Your task to perform on an android device: Open network settings Image 0: 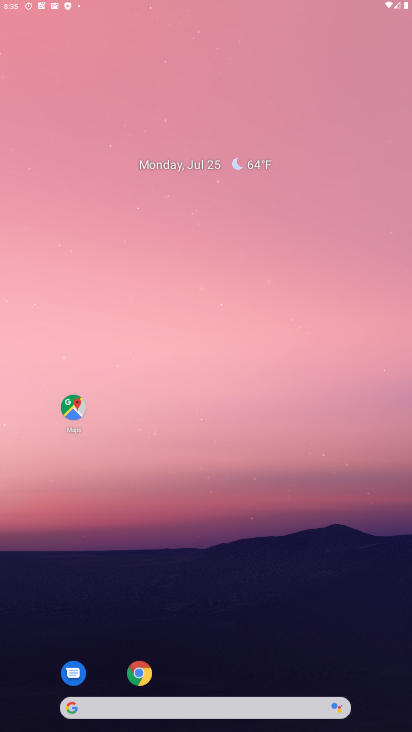
Step 0: drag from (205, 576) to (230, 170)
Your task to perform on an android device: Open network settings Image 1: 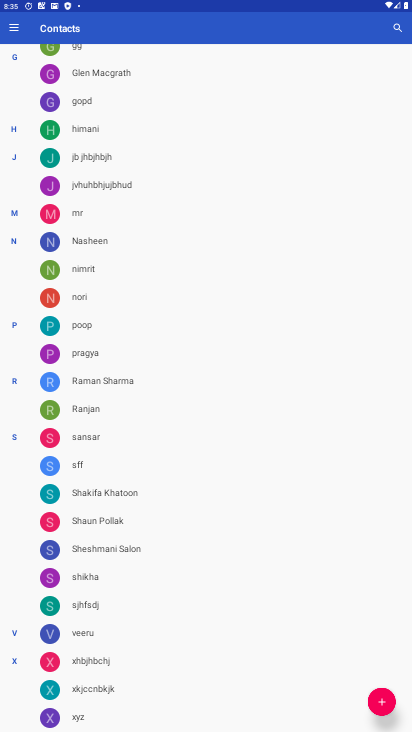
Step 1: press home button
Your task to perform on an android device: Open network settings Image 2: 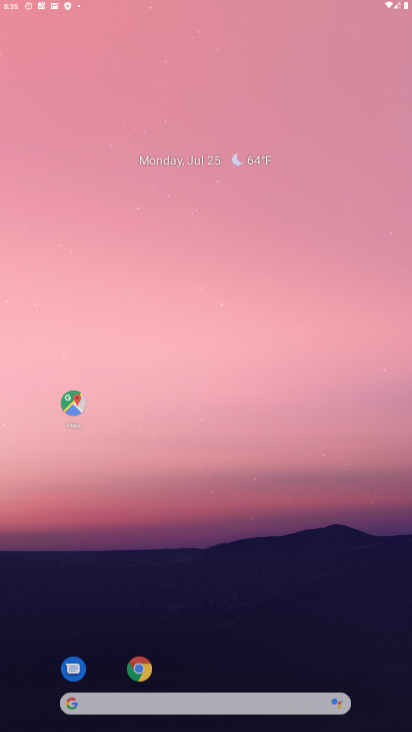
Step 2: drag from (159, 643) to (406, 26)
Your task to perform on an android device: Open network settings Image 3: 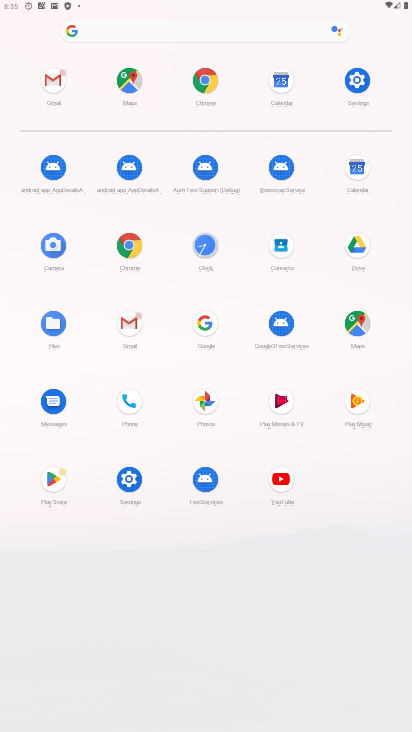
Step 3: click (130, 472)
Your task to perform on an android device: Open network settings Image 4: 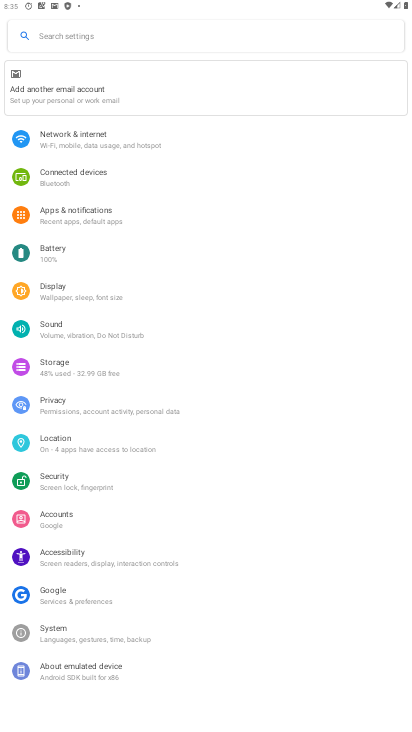
Step 4: click (111, 133)
Your task to perform on an android device: Open network settings Image 5: 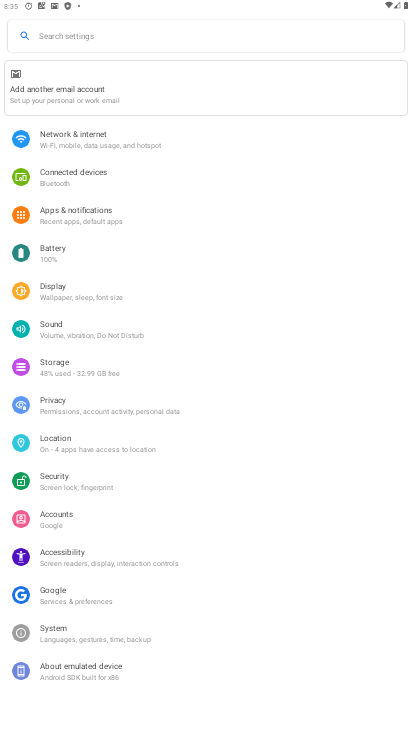
Step 5: click (111, 133)
Your task to perform on an android device: Open network settings Image 6: 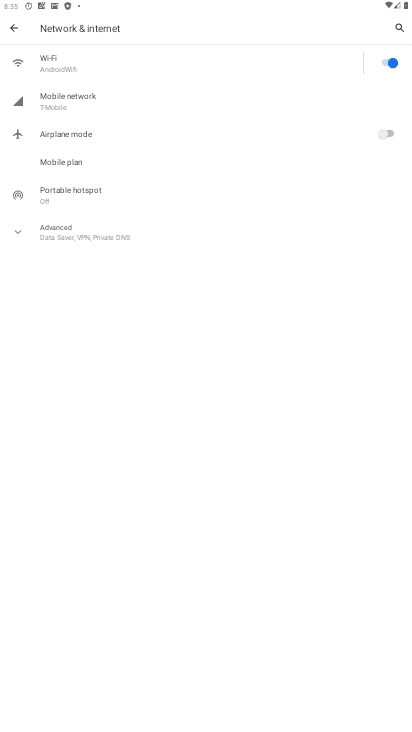
Step 6: task complete